Your task to perform on an android device: Do I have any events tomorrow? Image 0: 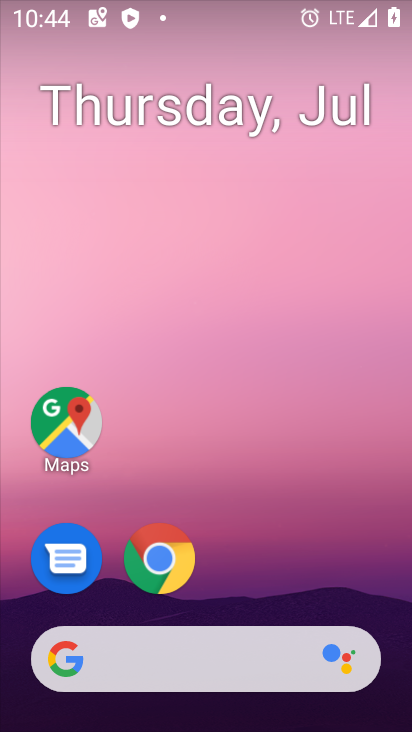
Step 0: drag from (376, 558) to (342, 90)
Your task to perform on an android device: Do I have any events tomorrow? Image 1: 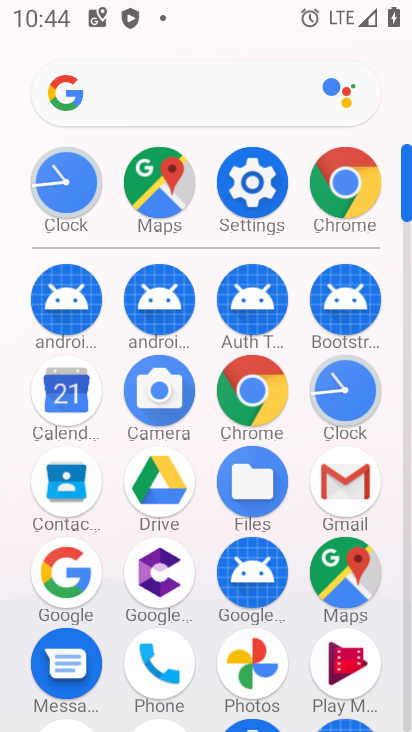
Step 1: click (62, 404)
Your task to perform on an android device: Do I have any events tomorrow? Image 2: 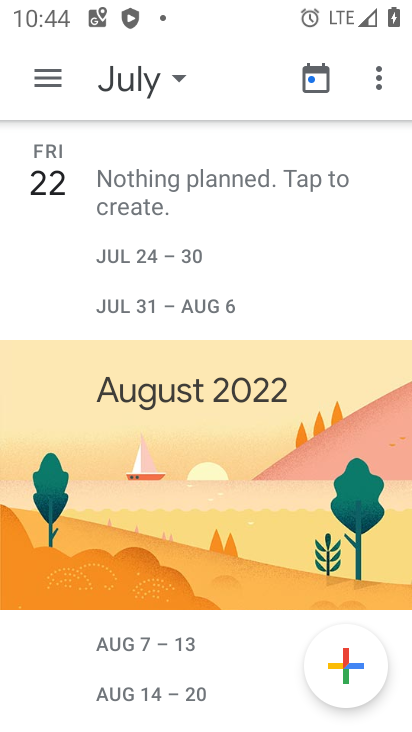
Step 2: click (177, 77)
Your task to perform on an android device: Do I have any events tomorrow? Image 3: 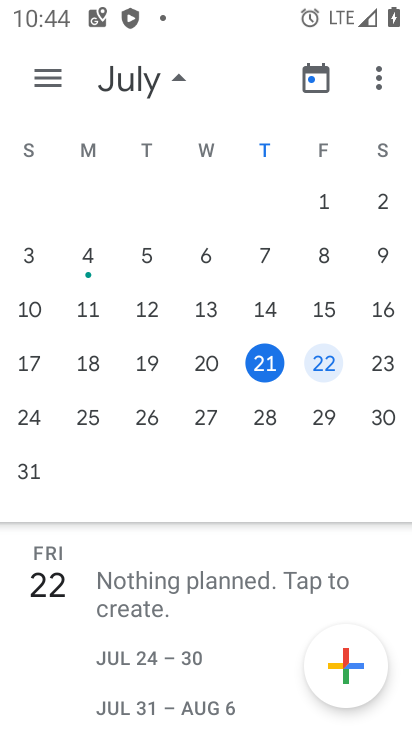
Step 3: click (382, 367)
Your task to perform on an android device: Do I have any events tomorrow? Image 4: 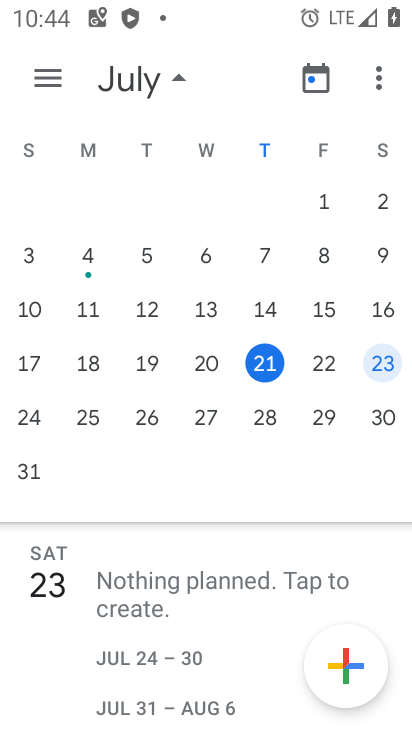
Step 4: task complete